Your task to perform on an android device: Open accessibility settings Image 0: 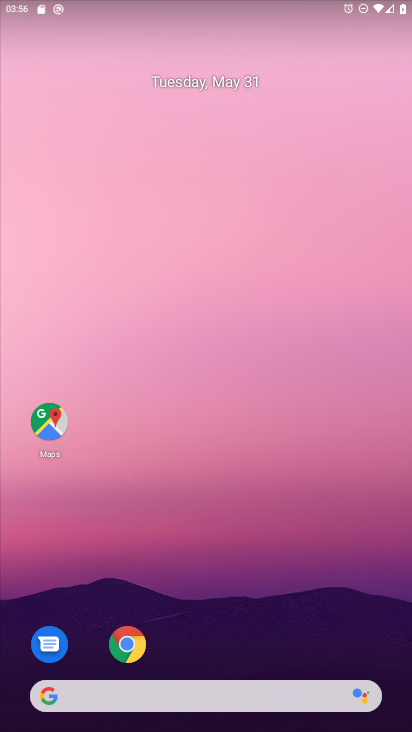
Step 0: drag from (236, 581) to (192, 120)
Your task to perform on an android device: Open accessibility settings Image 1: 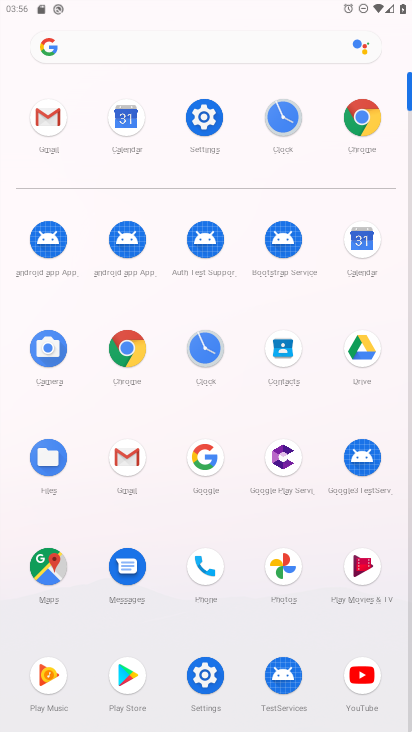
Step 1: click (204, 113)
Your task to perform on an android device: Open accessibility settings Image 2: 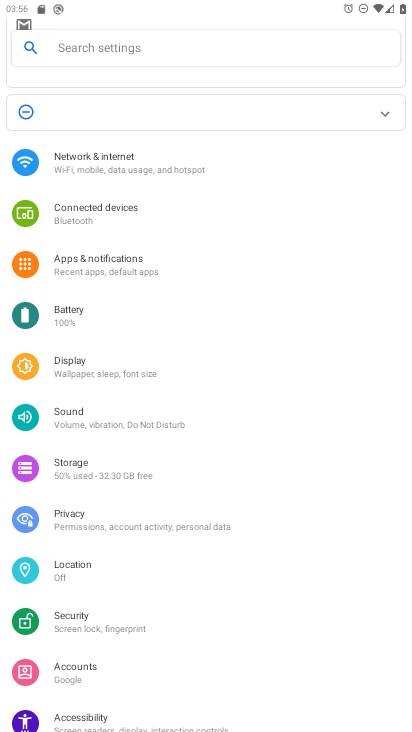
Step 2: drag from (125, 635) to (166, 251)
Your task to perform on an android device: Open accessibility settings Image 3: 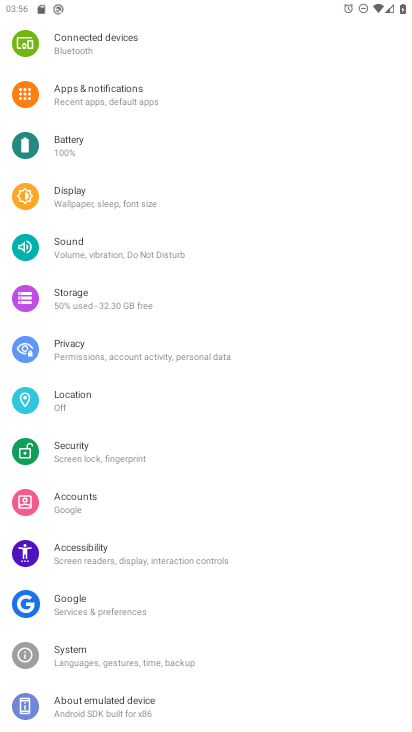
Step 3: click (95, 563)
Your task to perform on an android device: Open accessibility settings Image 4: 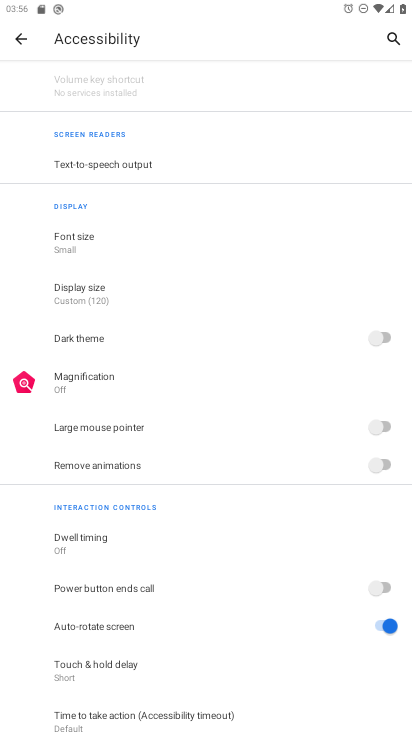
Step 4: task complete